Your task to perform on an android device: Add razer blade to the cart on bestbuy Image 0: 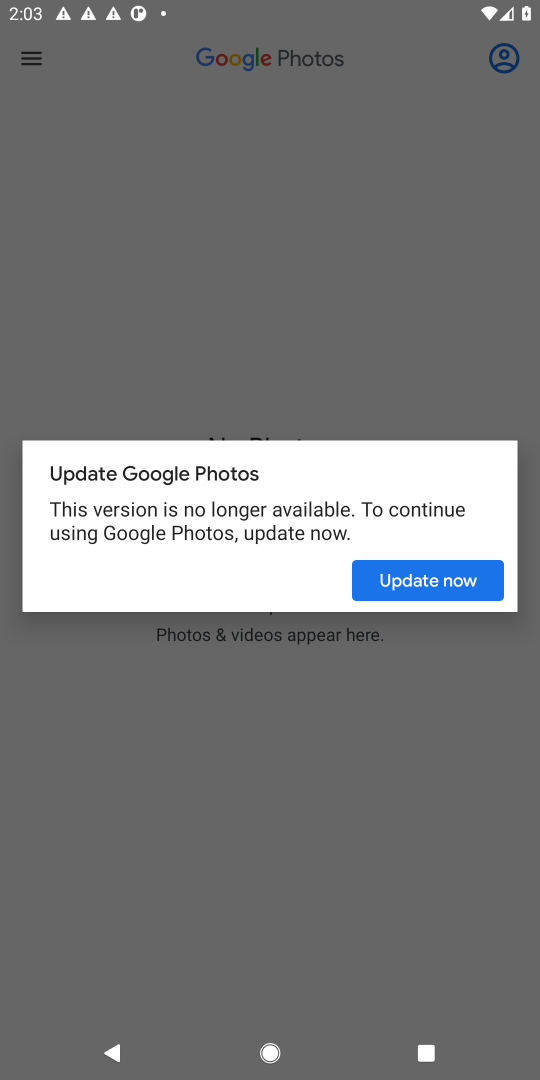
Step 0: press home button
Your task to perform on an android device: Add razer blade to the cart on bestbuy Image 1: 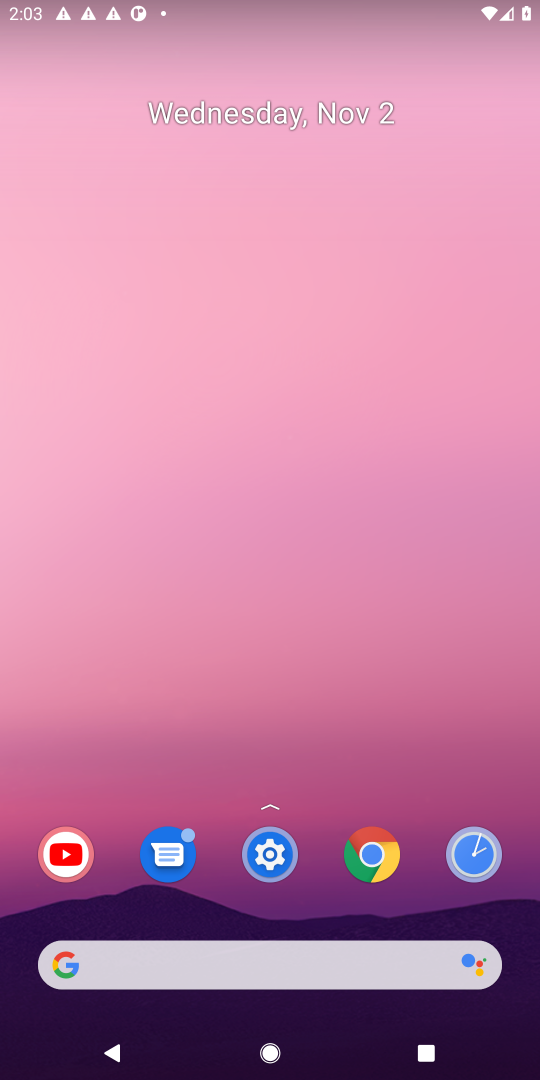
Step 1: click (150, 957)
Your task to perform on an android device: Add razer blade to the cart on bestbuy Image 2: 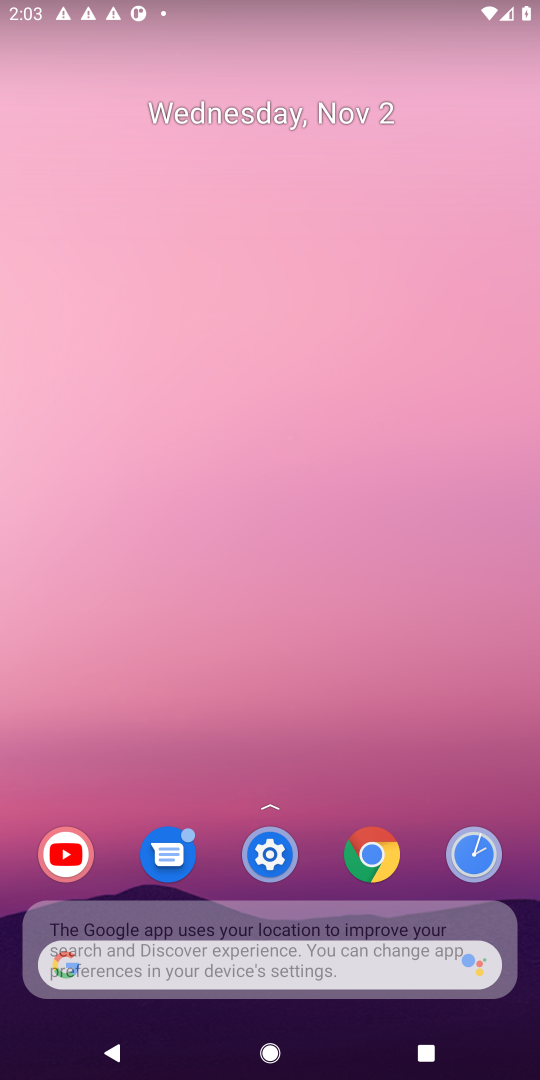
Step 2: click (150, 957)
Your task to perform on an android device: Add razer blade to the cart on bestbuy Image 3: 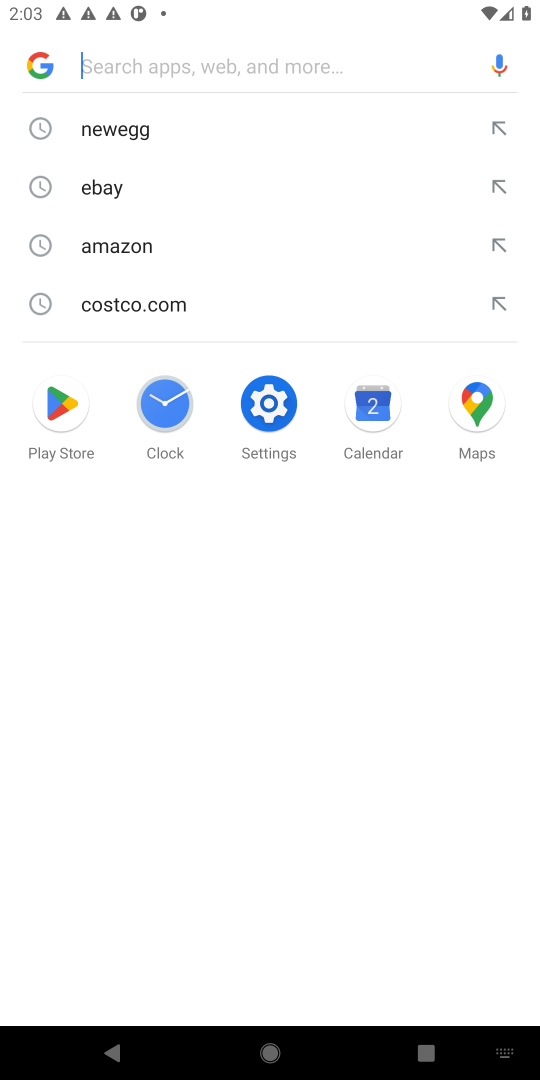
Step 3: type "bestbuy"
Your task to perform on an android device: Add razer blade to the cart on bestbuy Image 4: 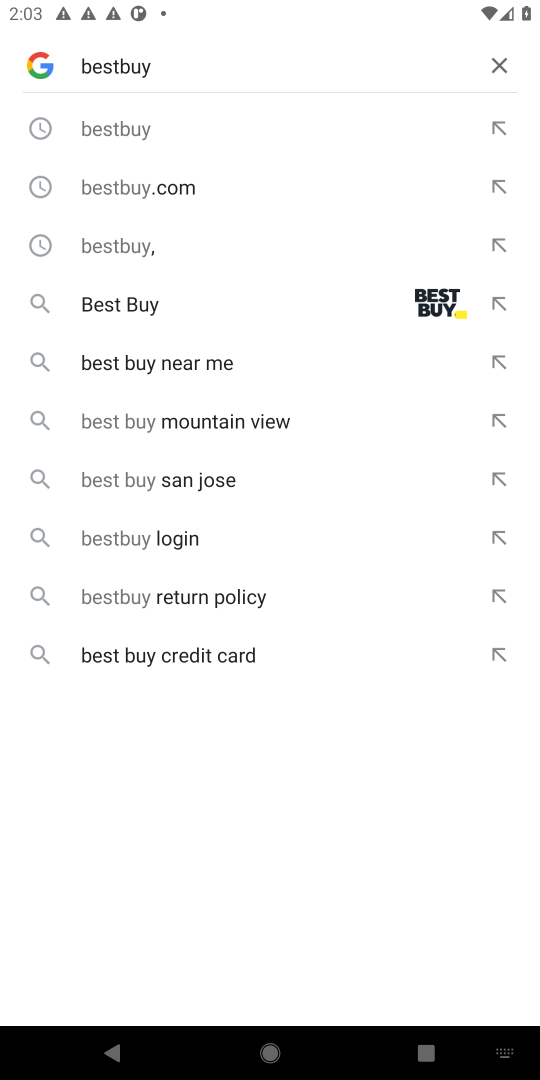
Step 4: press enter
Your task to perform on an android device: Add razer blade to the cart on bestbuy Image 5: 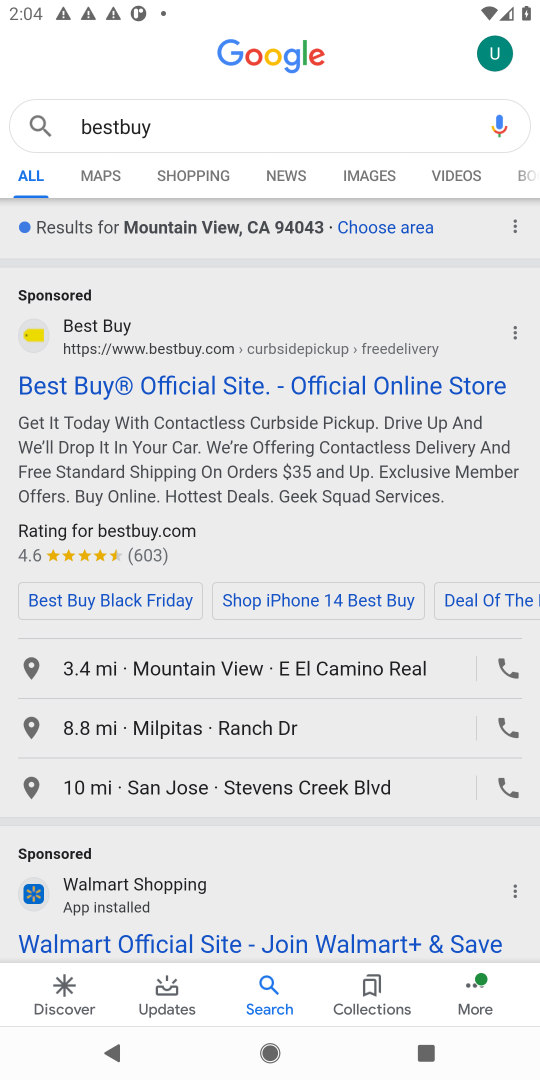
Step 5: click (117, 353)
Your task to perform on an android device: Add razer blade to the cart on bestbuy Image 6: 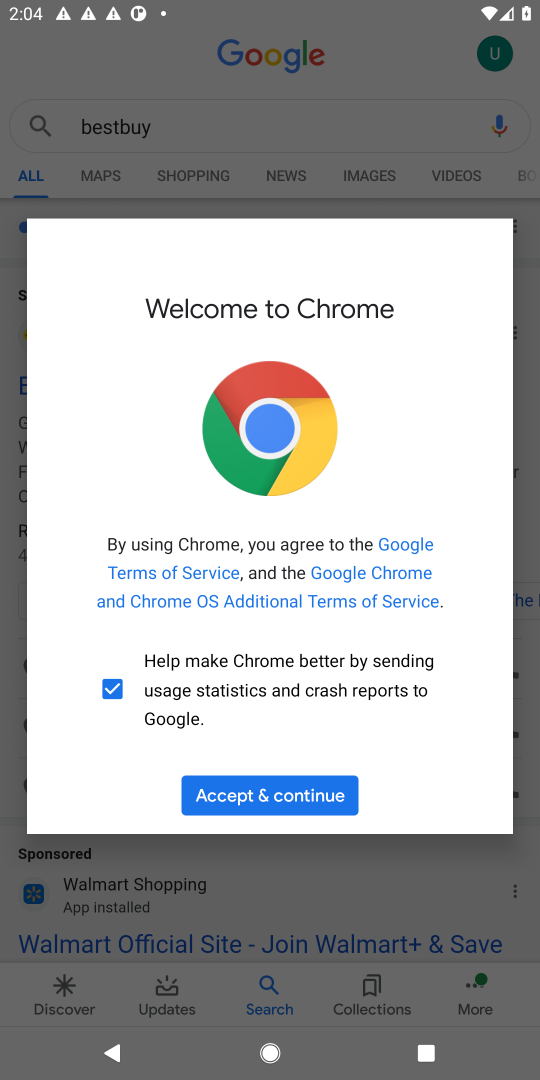
Step 6: click (240, 798)
Your task to perform on an android device: Add razer blade to the cart on bestbuy Image 7: 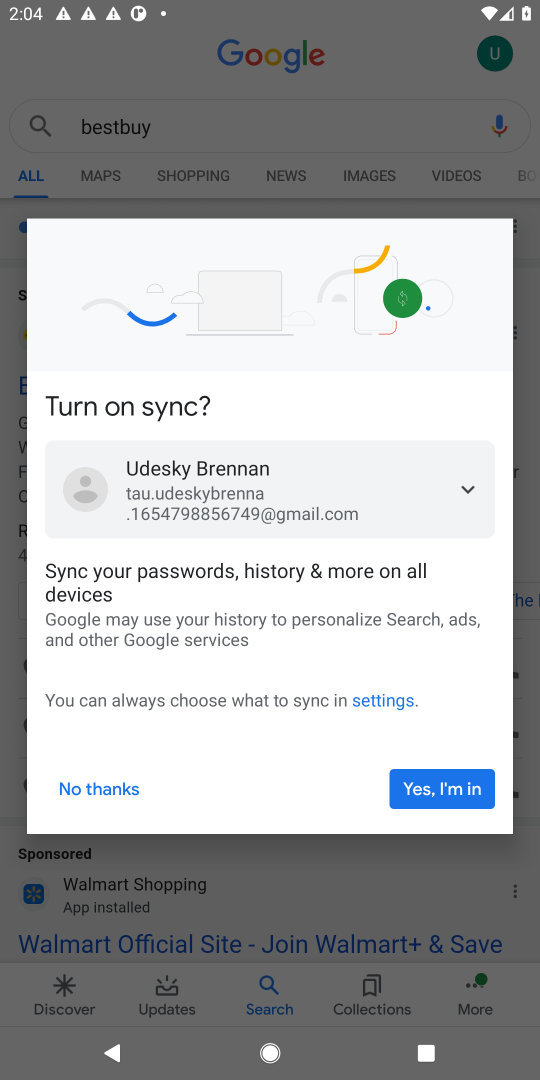
Step 7: click (418, 803)
Your task to perform on an android device: Add razer blade to the cart on bestbuy Image 8: 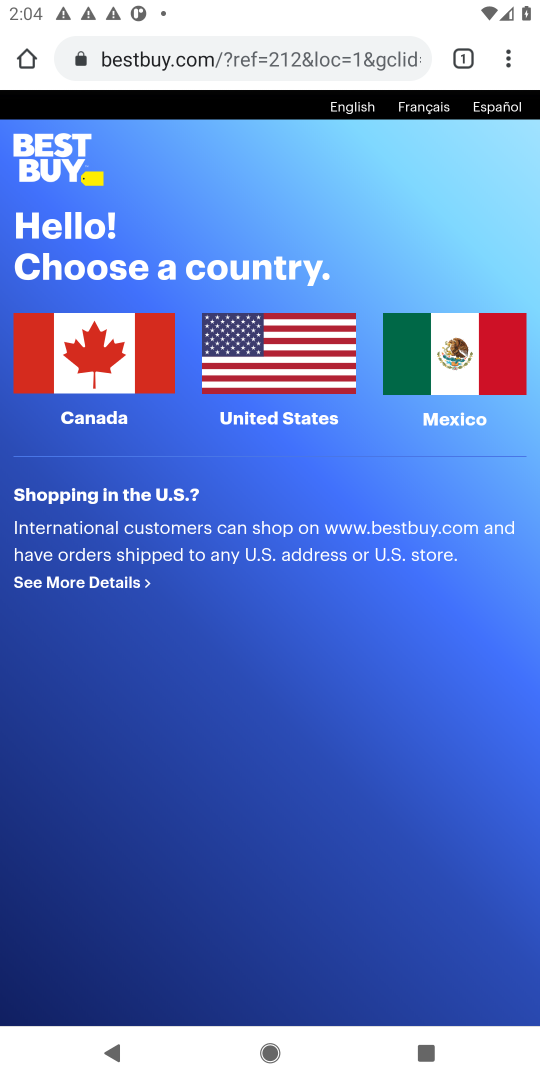
Step 8: click (324, 354)
Your task to perform on an android device: Add razer blade to the cart on bestbuy Image 9: 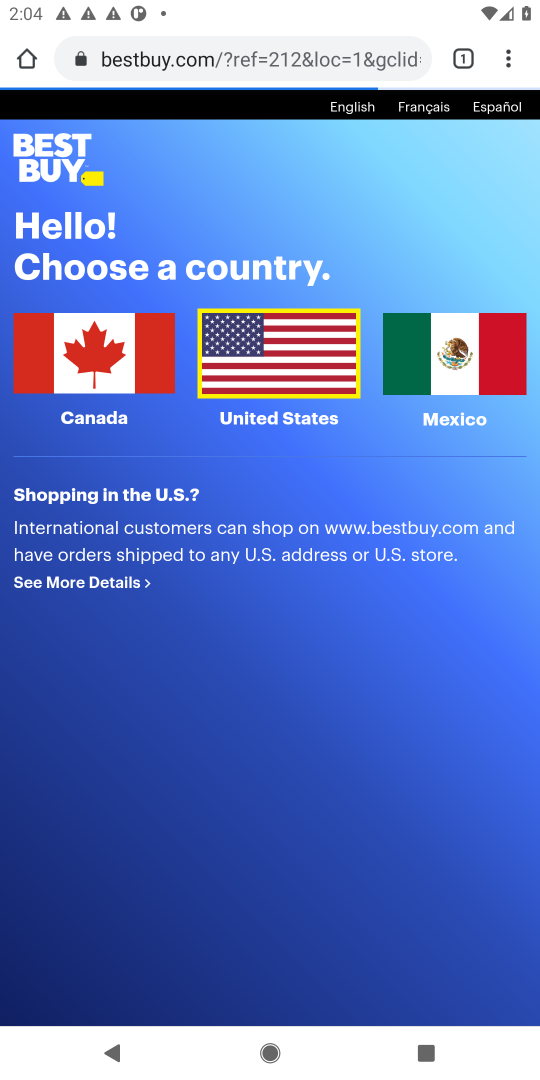
Step 9: click (324, 354)
Your task to perform on an android device: Add razer blade to the cart on bestbuy Image 10: 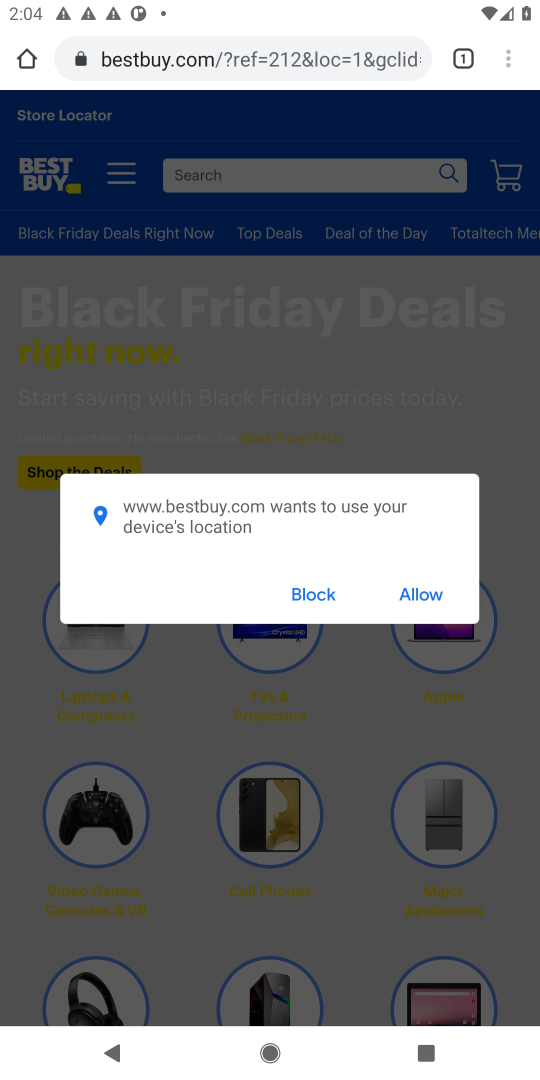
Step 10: click (307, 600)
Your task to perform on an android device: Add razer blade to the cart on bestbuy Image 11: 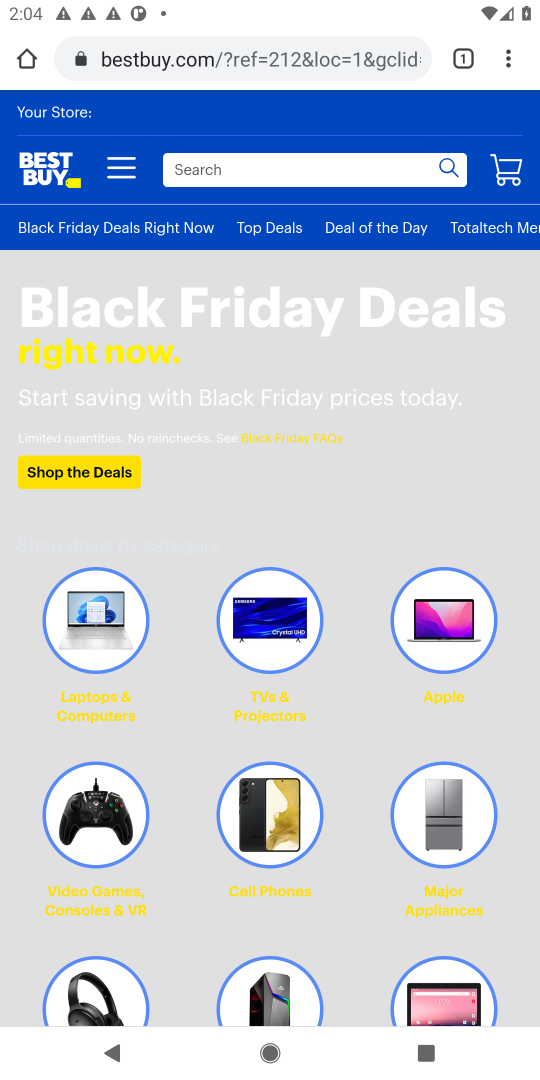
Step 11: click (307, 592)
Your task to perform on an android device: Add razer blade to the cart on bestbuy Image 12: 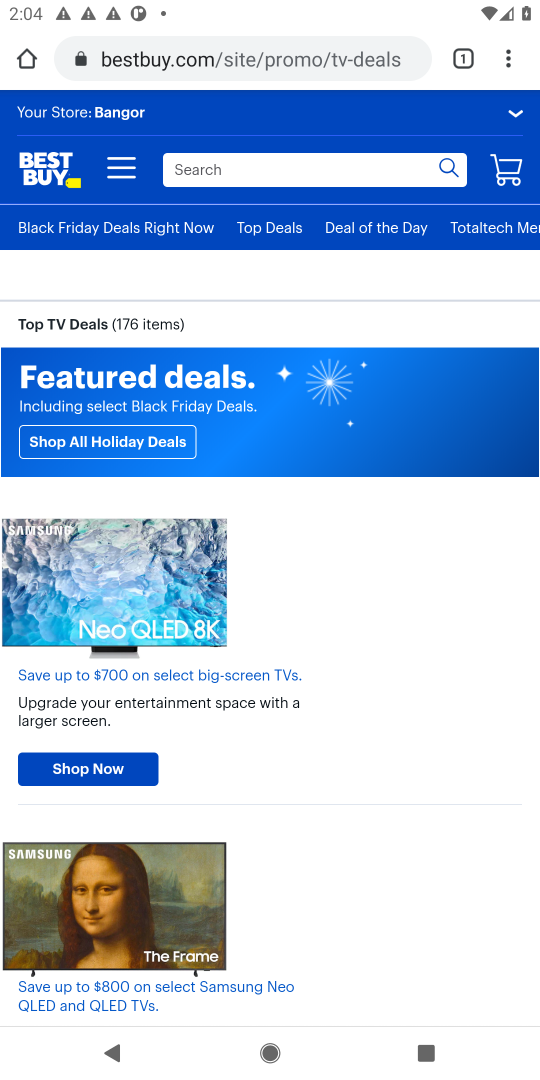
Step 12: click (220, 168)
Your task to perform on an android device: Add razer blade to the cart on bestbuy Image 13: 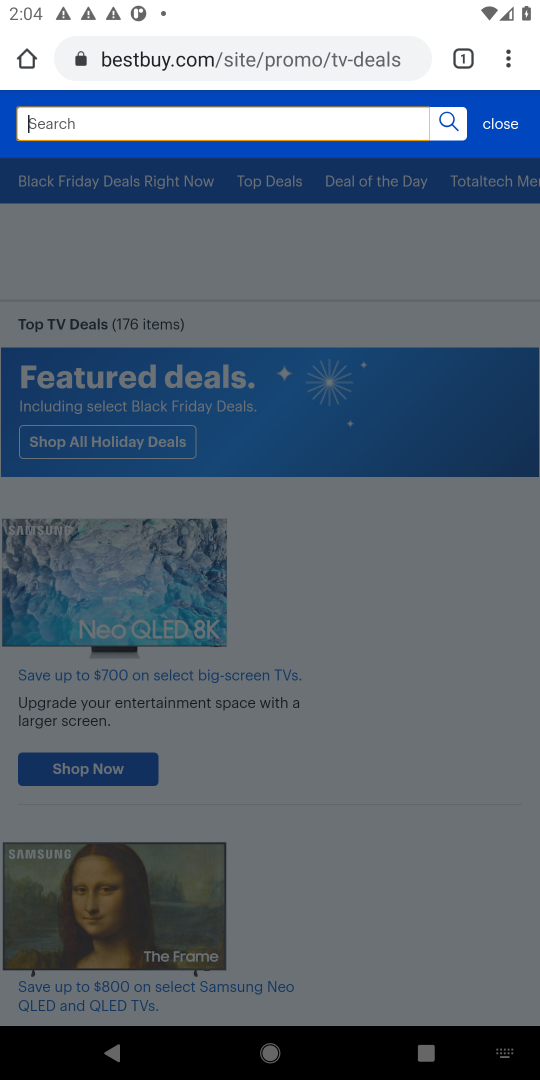
Step 13: click (220, 168)
Your task to perform on an android device: Add razer blade to the cart on bestbuy Image 14: 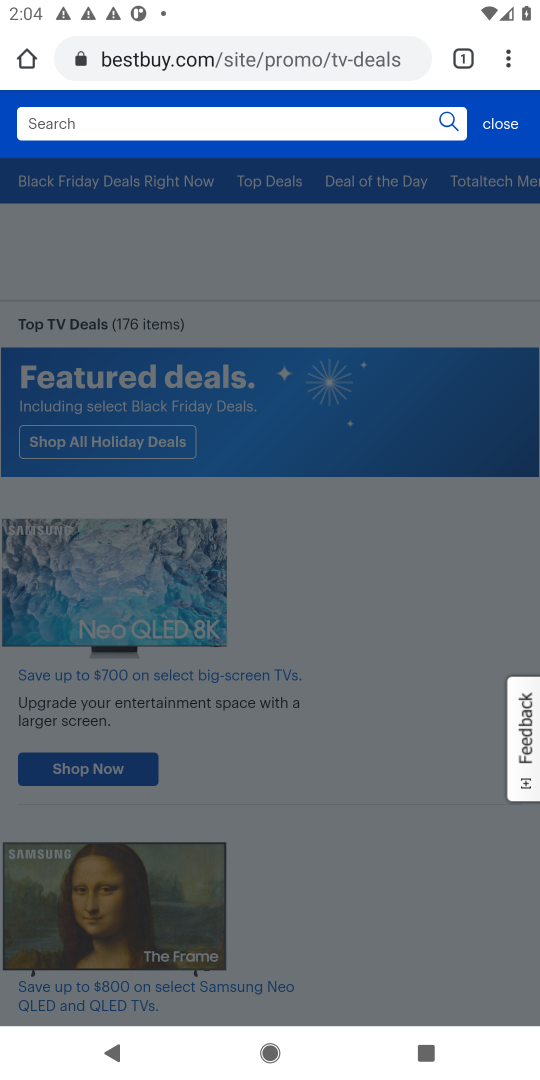
Step 14: type ""
Your task to perform on an android device: Add razer blade to the cart on bestbuy Image 15: 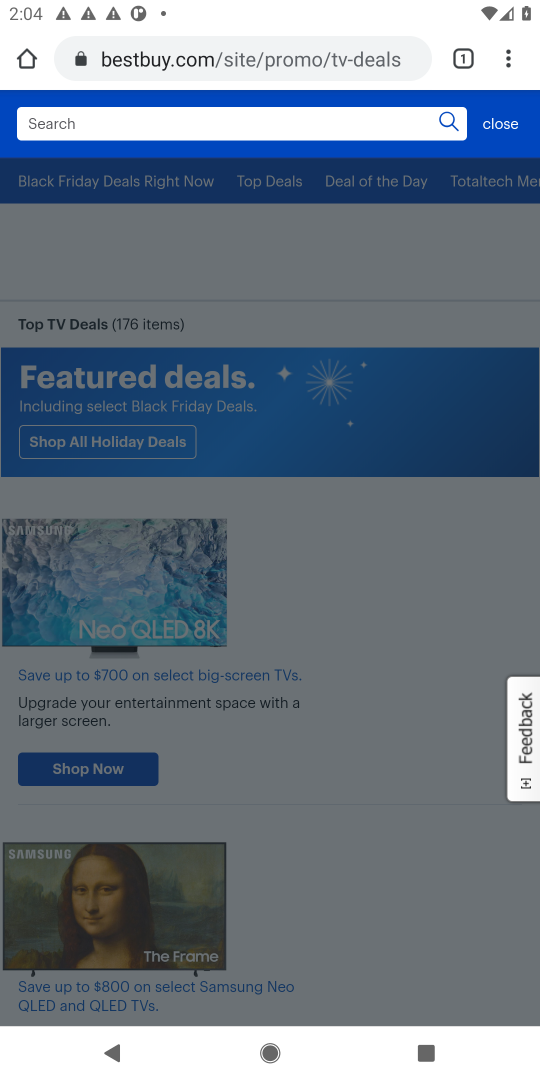
Step 15: type "razer blade"
Your task to perform on an android device: Add razer blade to the cart on bestbuy Image 16: 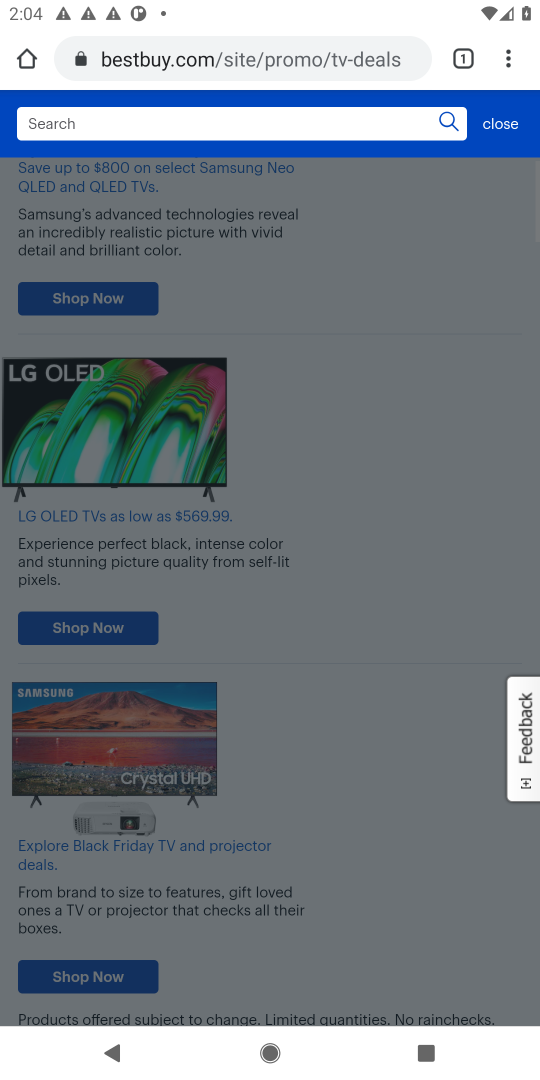
Step 16: type ""
Your task to perform on an android device: Add razer blade to the cart on bestbuy Image 17: 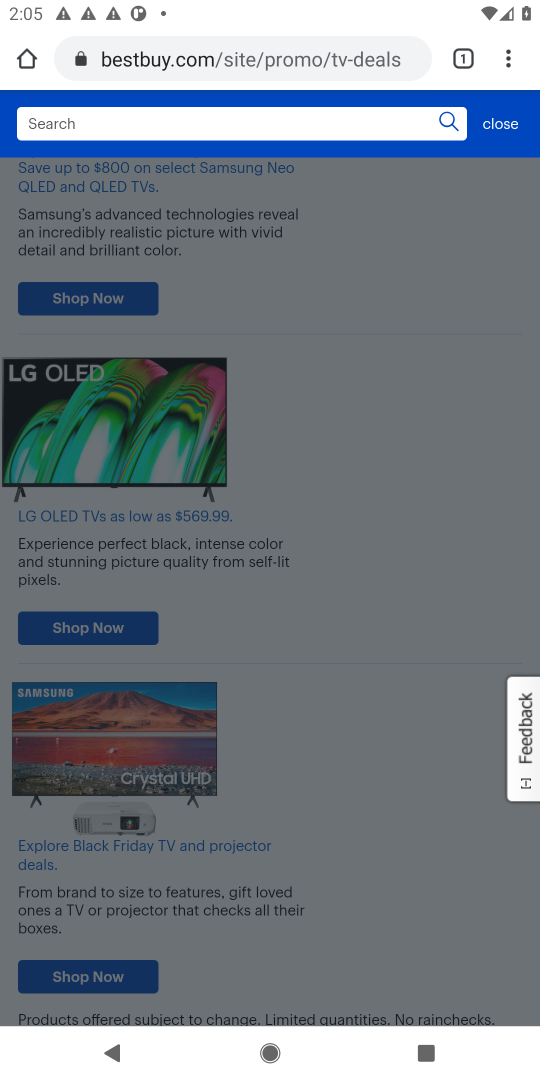
Step 17: click (171, 136)
Your task to perform on an android device: Add razer blade to the cart on bestbuy Image 18: 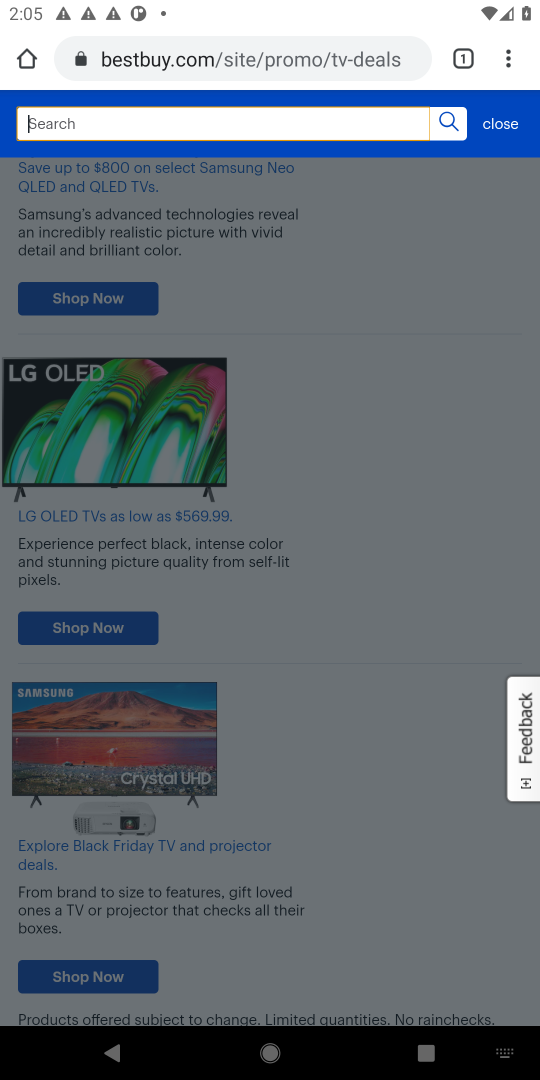
Step 18: click (171, 136)
Your task to perform on an android device: Add razer blade to the cart on bestbuy Image 19: 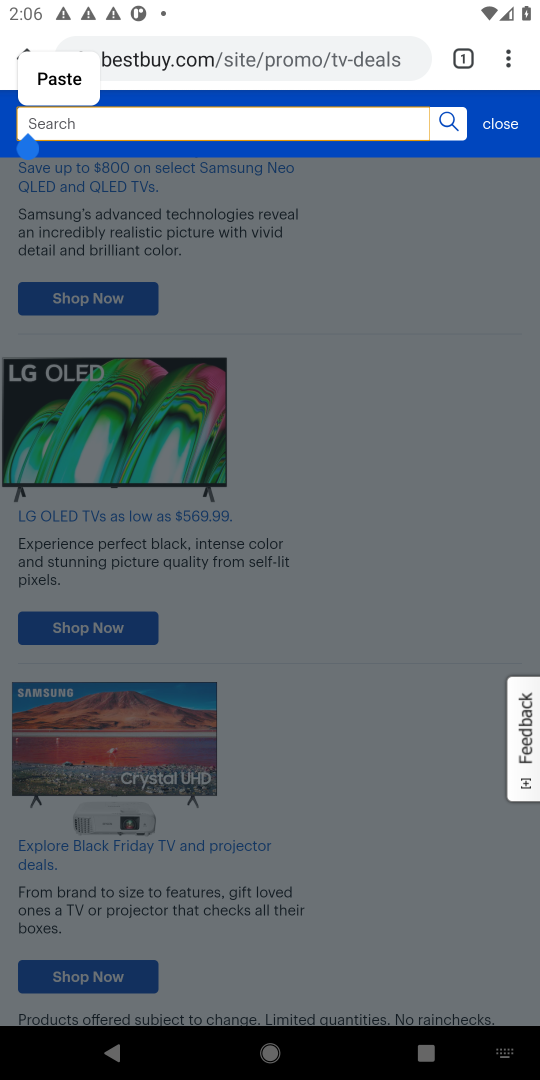
Step 19: type "razer blade"
Your task to perform on an android device: Add razer blade to the cart on bestbuy Image 20: 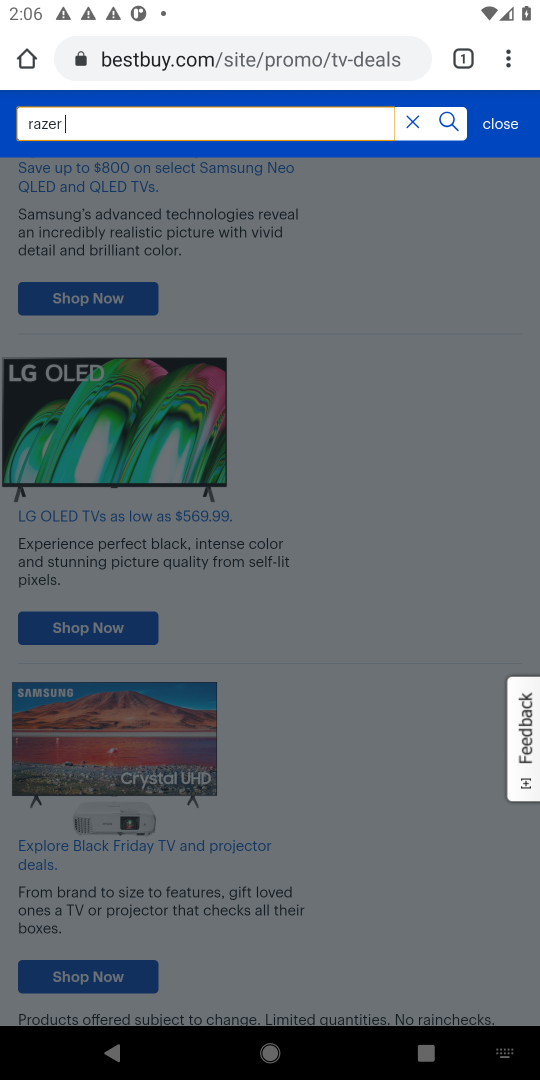
Step 20: type ""
Your task to perform on an android device: Add razer blade to the cart on bestbuy Image 21: 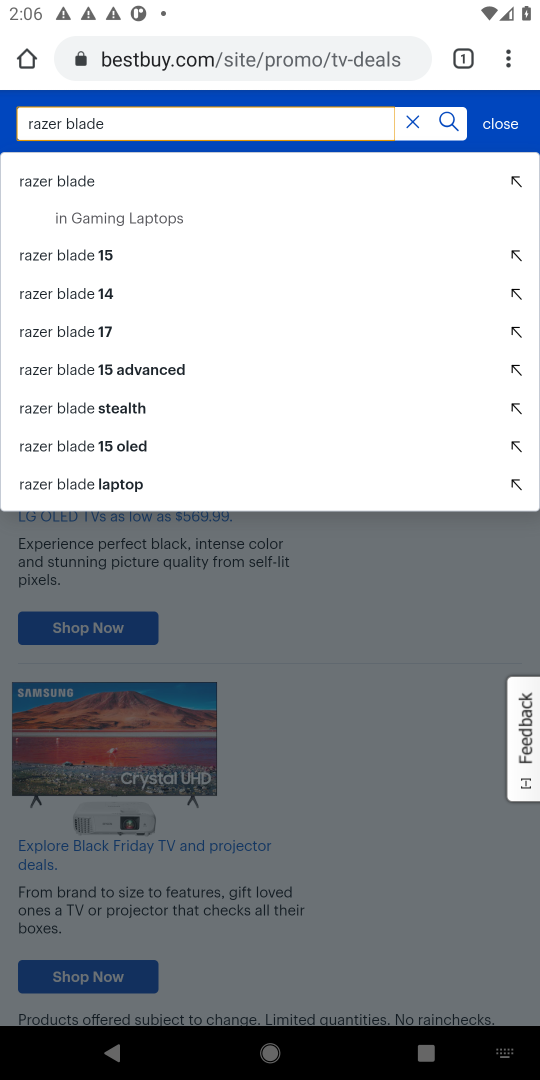
Step 21: press enter
Your task to perform on an android device: Add razer blade to the cart on bestbuy Image 22: 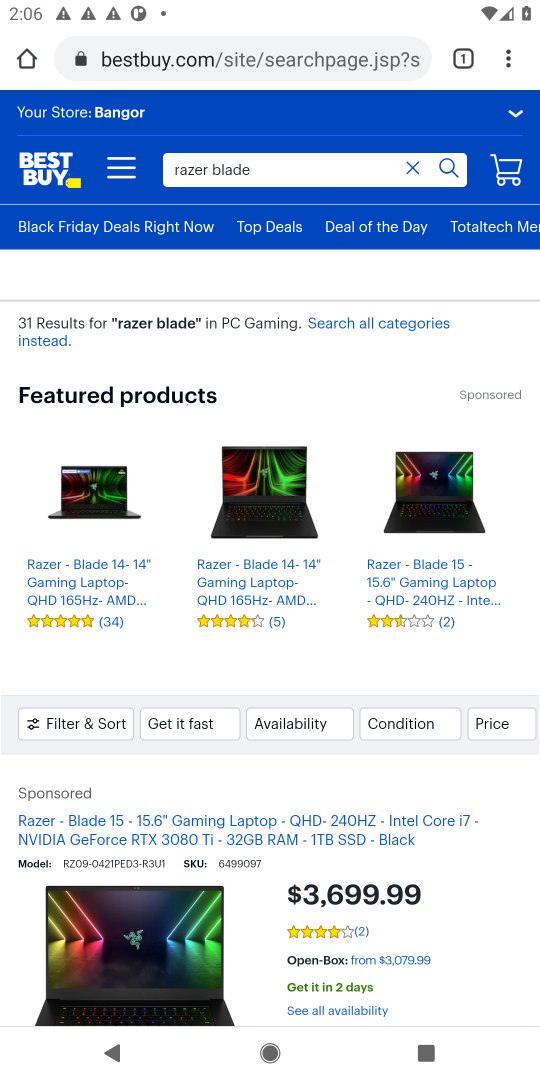
Step 22: drag from (448, 951) to (461, 788)
Your task to perform on an android device: Add razer blade to the cart on bestbuy Image 23: 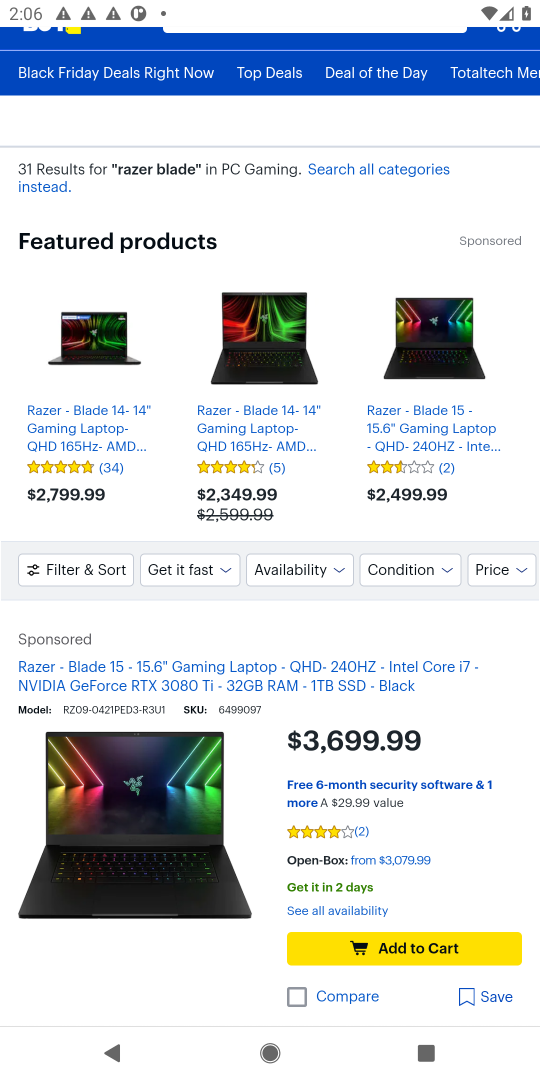
Step 23: click (402, 938)
Your task to perform on an android device: Add razer blade to the cart on bestbuy Image 24: 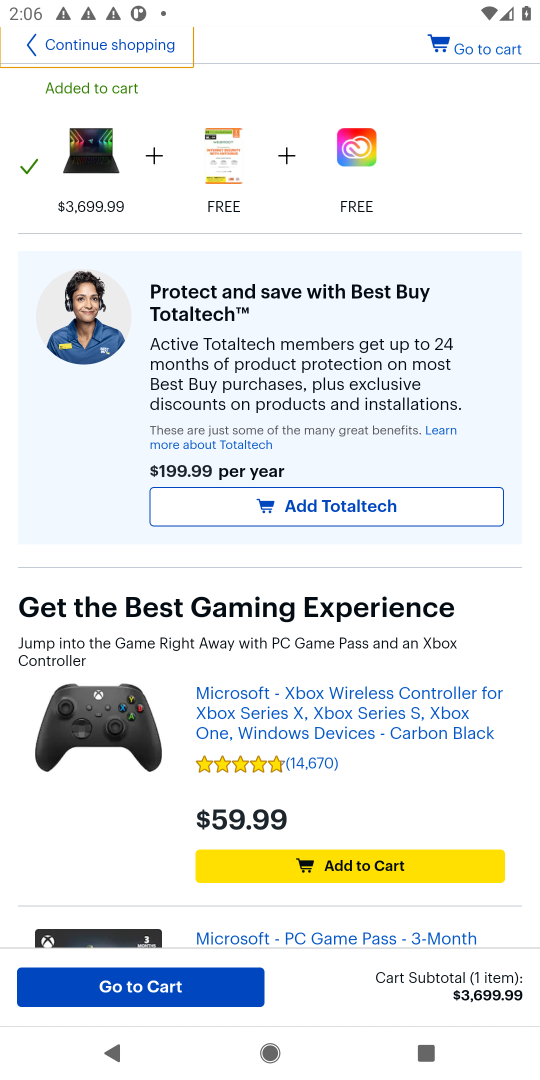
Step 24: click (387, 876)
Your task to perform on an android device: Add razer blade to the cart on bestbuy Image 25: 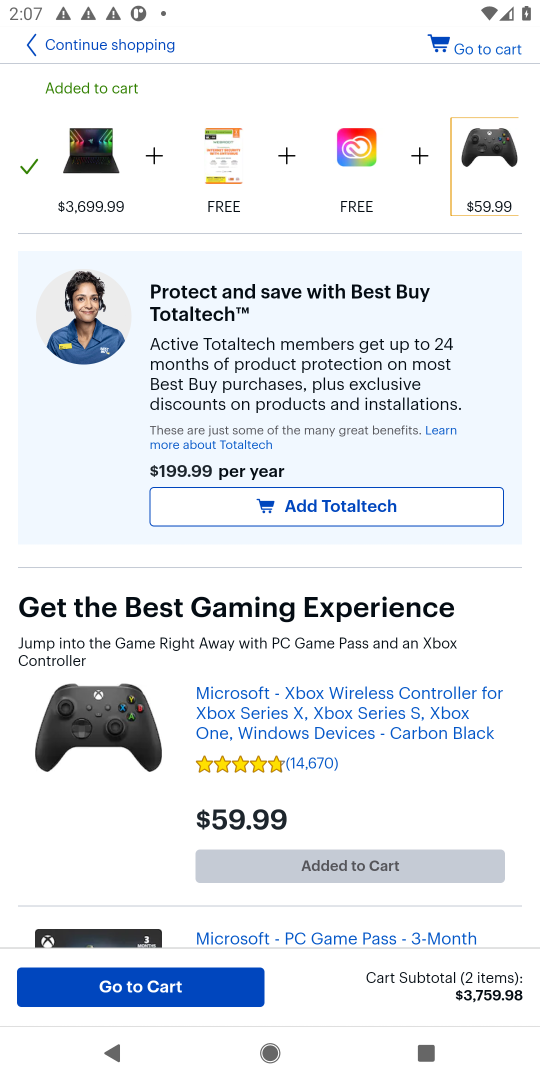
Step 25: task complete